Your task to perform on an android device: turn off data saver in the chrome app Image 0: 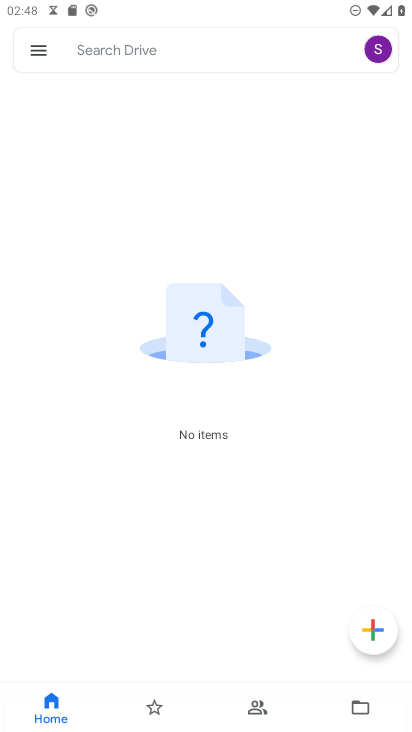
Step 0: press home button
Your task to perform on an android device: turn off data saver in the chrome app Image 1: 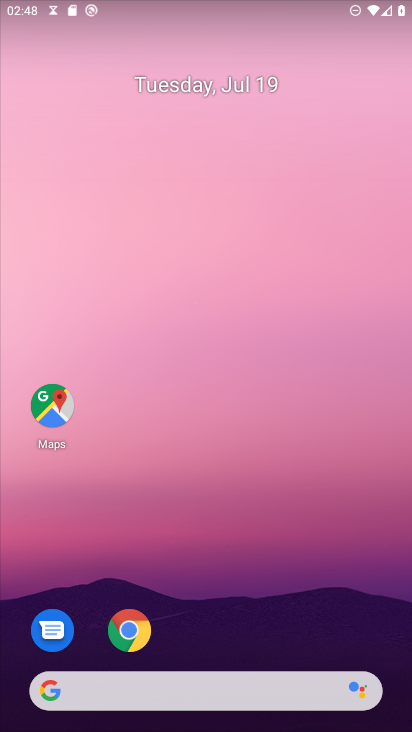
Step 1: click (124, 625)
Your task to perform on an android device: turn off data saver in the chrome app Image 2: 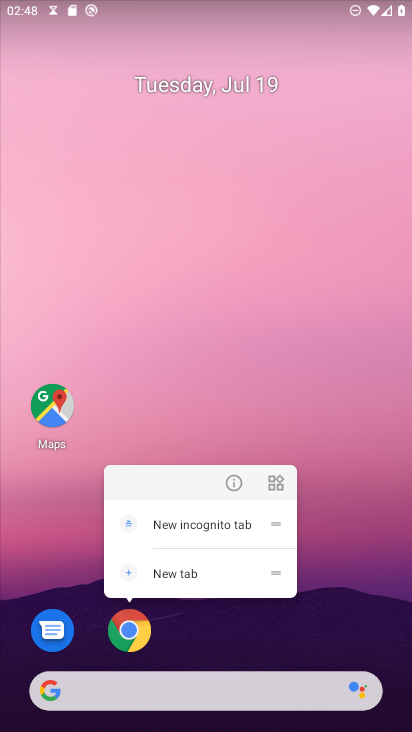
Step 2: click (124, 626)
Your task to perform on an android device: turn off data saver in the chrome app Image 3: 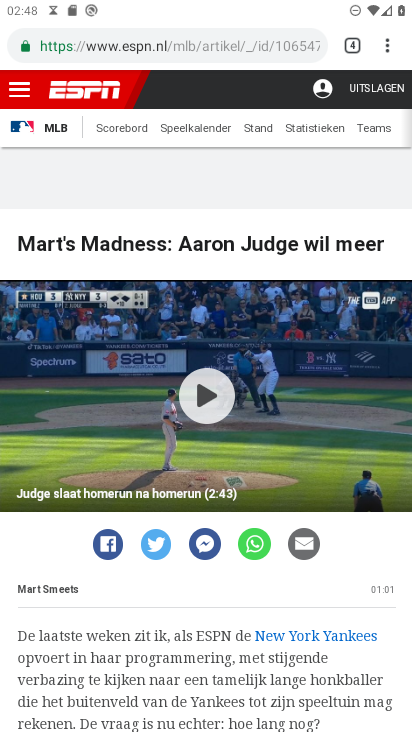
Step 3: drag from (388, 44) to (217, 552)
Your task to perform on an android device: turn off data saver in the chrome app Image 4: 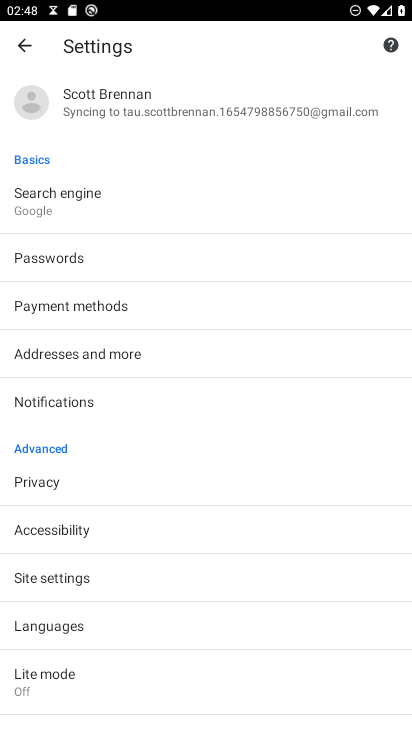
Step 4: drag from (250, 556) to (285, 303)
Your task to perform on an android device: turn off data saver in the chrome app Image 5: 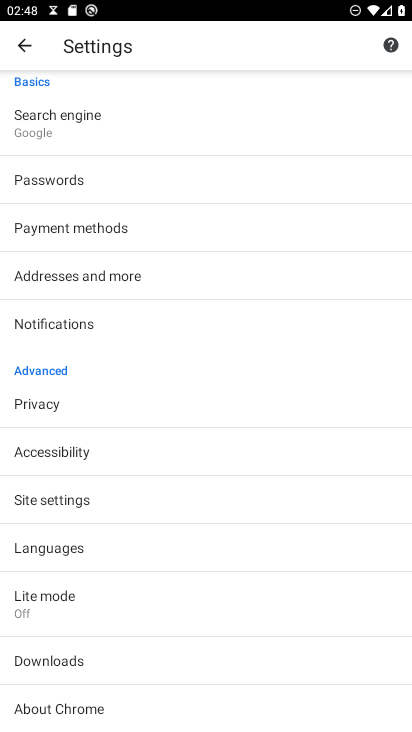
Step 5: click (32, 594)
Your task to perform on an android device: turn off data saver in the chrome app Image 6: 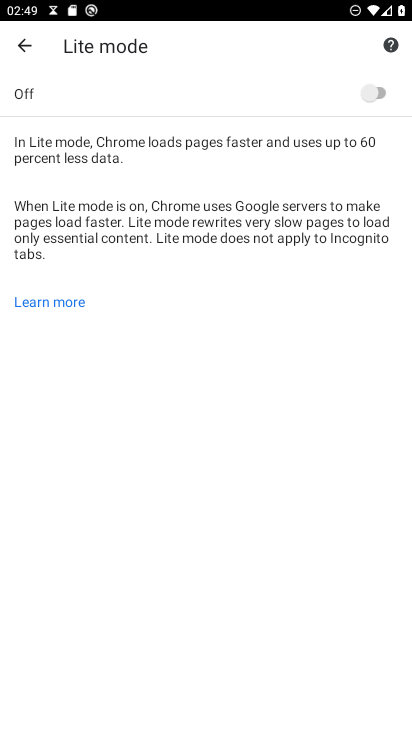
Step 6: task complete